Your task to perform on an android device: Clear the shopping cart on bestbuy.com. Search for bose soundlink on bestbuy.com, select the first entry, and add it to the cart. Image 0: 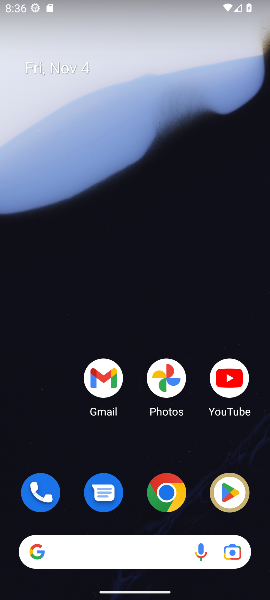
Step 0: drag from (128, 444) to (139, 39)
Your task to perform on an android device: Clear the shopping cart on bestbuy.com. Search for bose soundlink on bestbuy.com, select the first entry, and add it to the cart. Image 1: 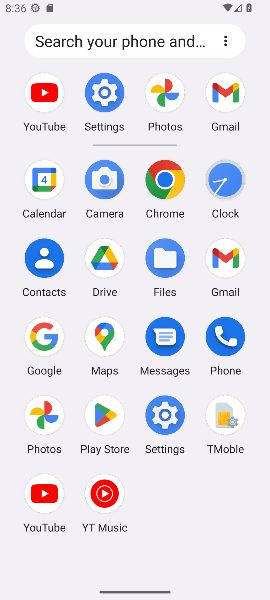
Step 1: click (162, 176)
Your task to perform on an android device: Clear the shopping cart on bestbuy.com. Search for bose soundlink on bestbuy.com, select the first entry, and add it to the cart. Image 2: 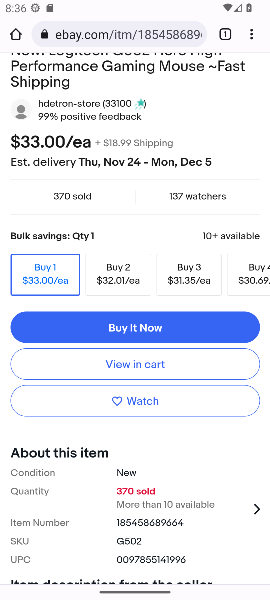
Step 2: click (144, 28)
Your task to perform on an android device: Clear the shopping cart on bestbuy.com. Search for bose soundlink on bestbuy.com, select the first entry, and add it to the cart. Image 3: 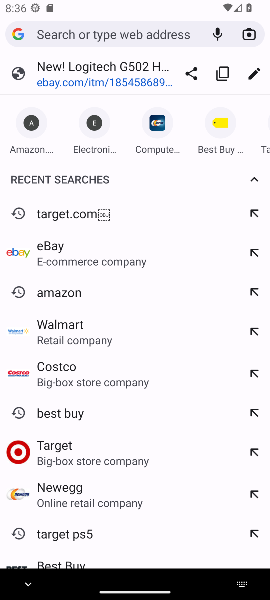
Step 3: type "bestbuy.com"
Your task to perform on an android device: Clear the shopping cart on bestbuy.com. Search for bose soundlink on bestbuy.com, select the first entry, and add it to the cart. Image 4: 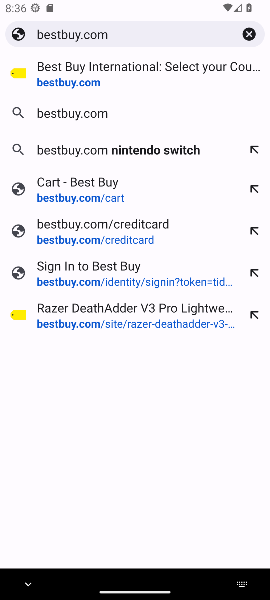
Step 4: press enter
Your task to perform on an android device: Clear the shopping cart on bestbuy.com. Search for bose soundlink on bestbuy.com, select the first entry, and add it to the cart. Image 5: 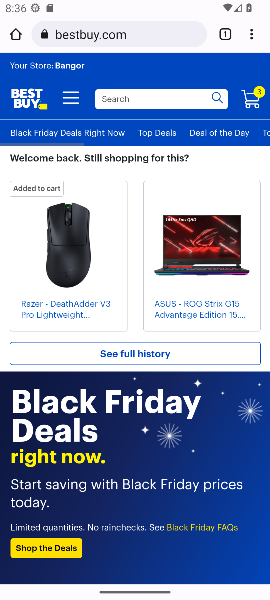
Step 5: click (243, 100)
Your task to perform on an android device: Clear the shopping cart on bestbuy.com. Search for bose soundlink on bestbuy.com, select the first entry, and add it to the cart. Image 6: 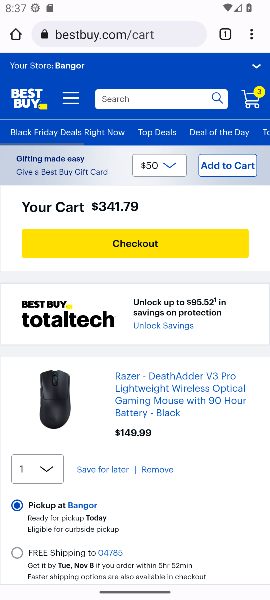
Step 6: click (150, 469)
Your task to perform on an android device: Clear the shopping cart on bestbuy.com. Search for bose soundlink on bestbuy.com, select the first entry, and add it to the cart. Image 7: 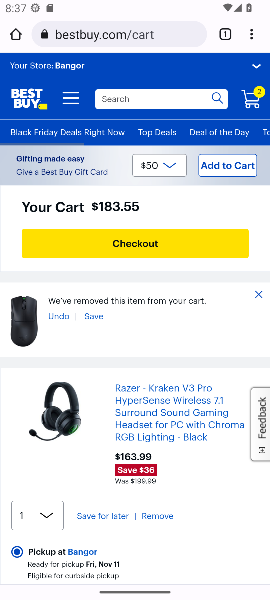
Step 7: click (159, 516)
Your task to perform on an android device: Clear the shopping cart on bestbuy.com. Search for bose soundlink on bestbuy.com, select the first entry, and add it to the cart. Image 8: 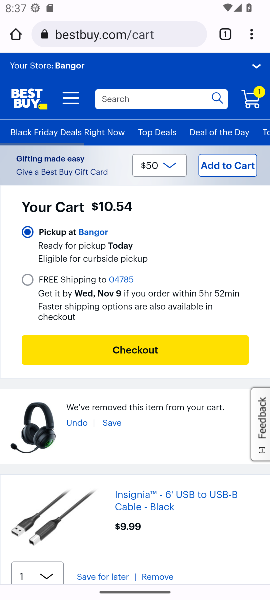
Step 8: click (164, 575)
Your task to perform on an android device: Clear the shopping cart on bestbuy.com. Search for bose soundlink on bestbuy.com, select the first entry, and add it to the cart. Image 9: 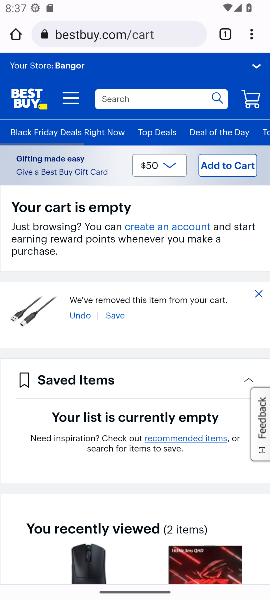
Step 9: click (183, 92)
Your task to perform on an android device: Clear the shopping cart on bestbuy.com. Search for bose soundlink on bestbuy.com, select the first entry, and add it to the cart. Image 10: 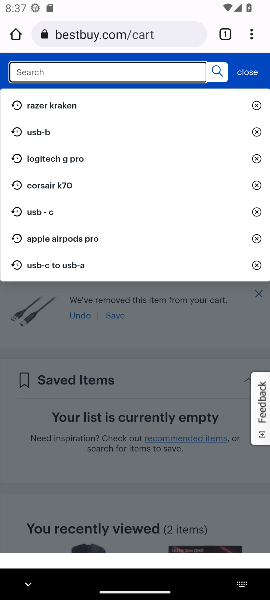
Step 10: type "bose soundlink"
Your task to perform on an android device: Clear the shopping cart on bestbuy.com. Search for bose soundlink on bestbuy.com, select the first entry, and add it to the cart. Image 11: 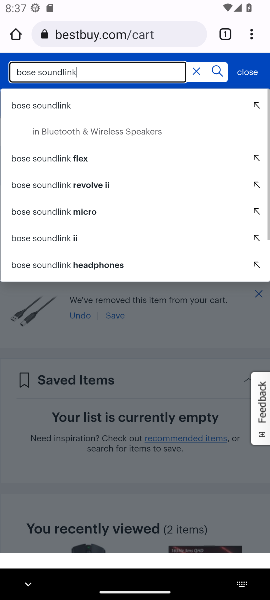
Step 11: press enter
Your task to perform on an android device: Clear the shopping cart on bestbuy.com. Search for bose soundlink on bestbuy.com, select the first entry, and add it to the cart. Image 12: 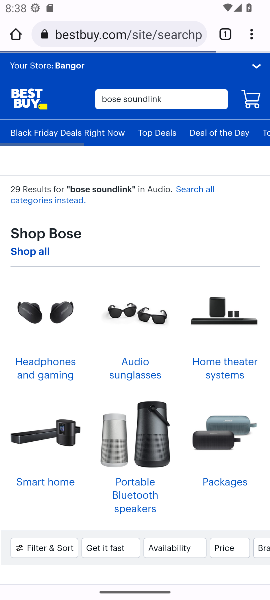
Step 12: drag from (212, 439) to (222, 160)
Your task to perform on an android device: Clear the shopping cart on bestbuy.com. Search for bose soundlink on bestbuy.com, select the first entry, and add it to the cart. Image 13: 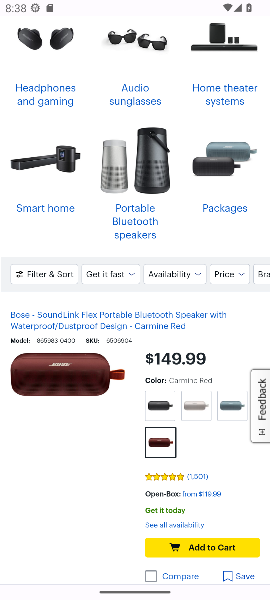
Step 13: drag from (124, 463) to (133, 287)
Your task to perform on an android device: Clear the shopping cart on bestbuy.com. Search for bose soundlink on bestbuy.com, select the first entry, and add it to the cart. Image 14: 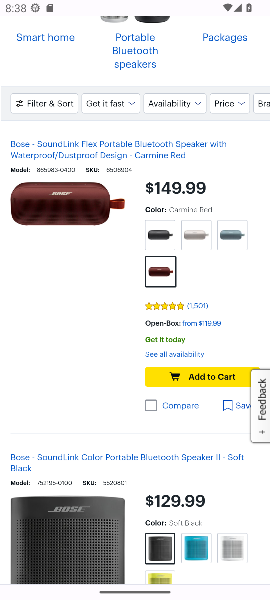
Step 14: click (210, 382)
Your task to perform on an android device: Clear the shopping cart on bestbuy.com. Search for bose soundlink on bestbuy.com, select the first entry, and add it to the cart. Image 15: 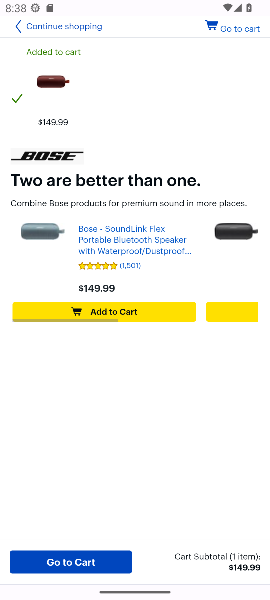
Step 15: task complete